Your task to perform on an android device: see creations saved in the google photos Image 0: 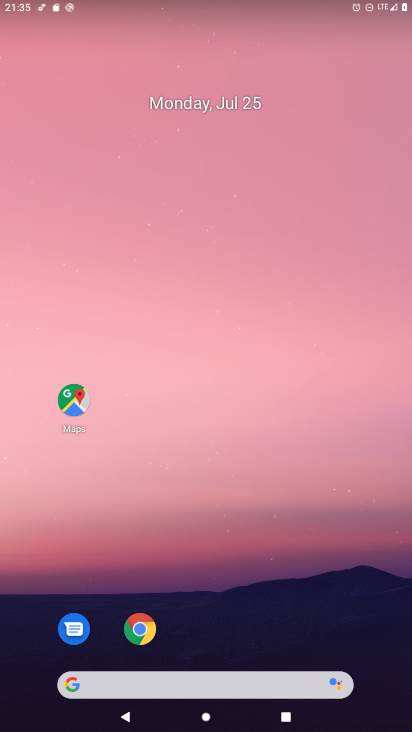
Step 0: drag from (176, 678) to (183, 361)
Your task to perform on an android device: see creations saved in the google photos Image 1: 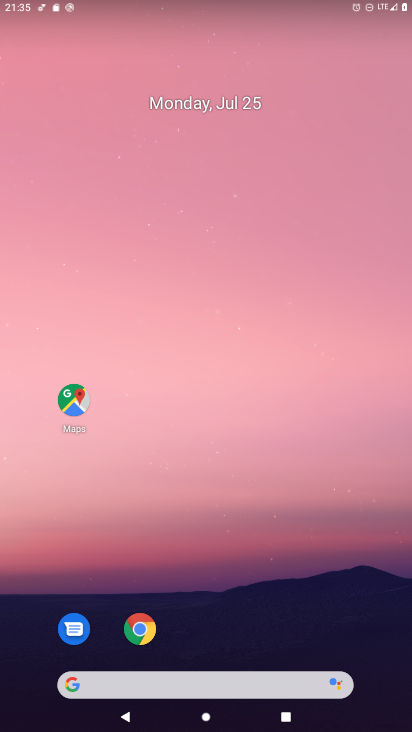
Step 1: drag from (152, 681) to (143, 196)
Your task to perform on an android device: see creations saved in the google photos Image 2: 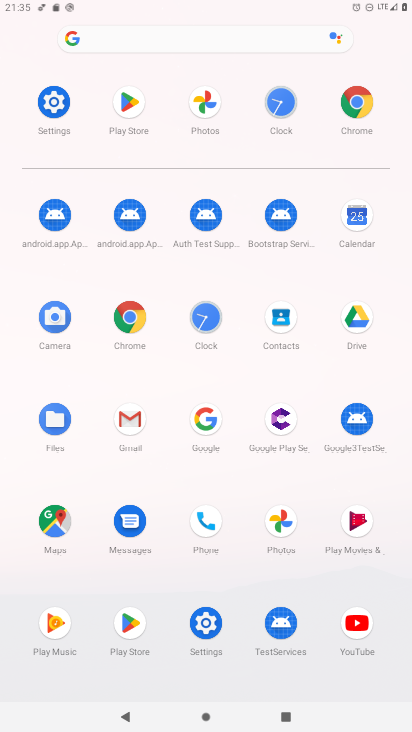
Step 2: click (279, 521)
Your task to perform on an android device: see creations saved in the google photos Image 3: 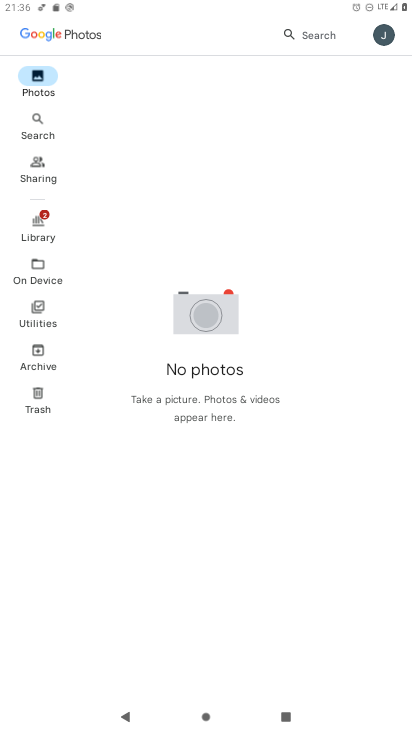
Step 3: click (299, 29)
Your task to perform on an android device: see creations saved in the google photos Image 4: 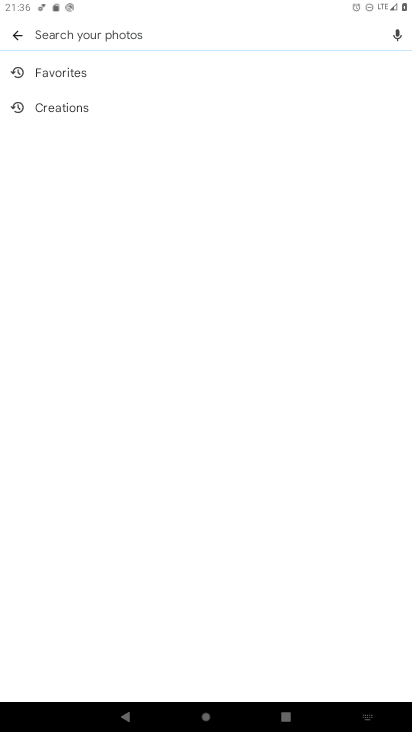
Step 4: click (60, 106)
Your task to perform on an android device: see creations saved in the google photos Image 5: 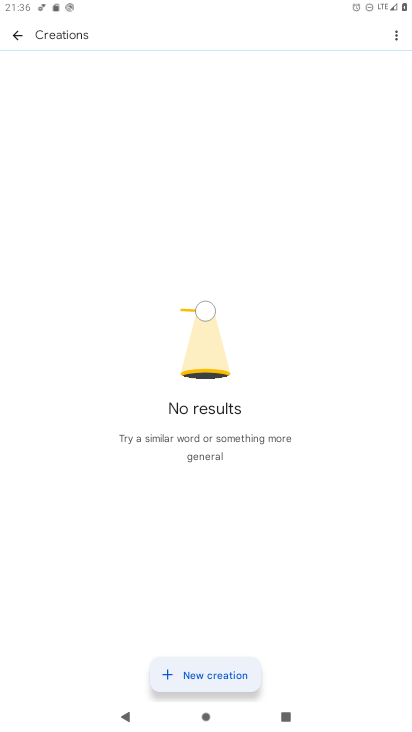
Step 5: click (207, 671)
Your task to perform on an android device: see creations saved in the google photos Image 6: 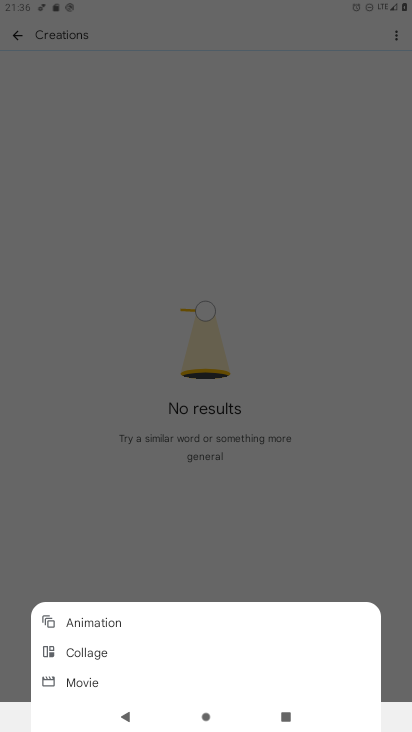
Step 6: click (167, 509)
Your task to perform on an android device: see creations saved in the google photos Image 7: 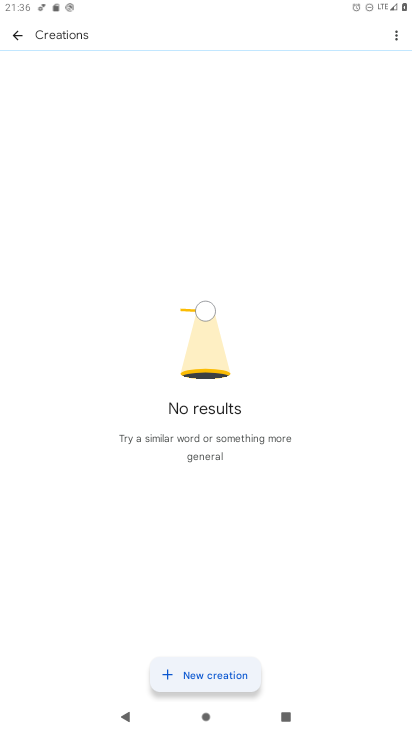
Step 7: click (192, 676)
Your task to perform on an android device: see creations saved in the google photos Image 8: 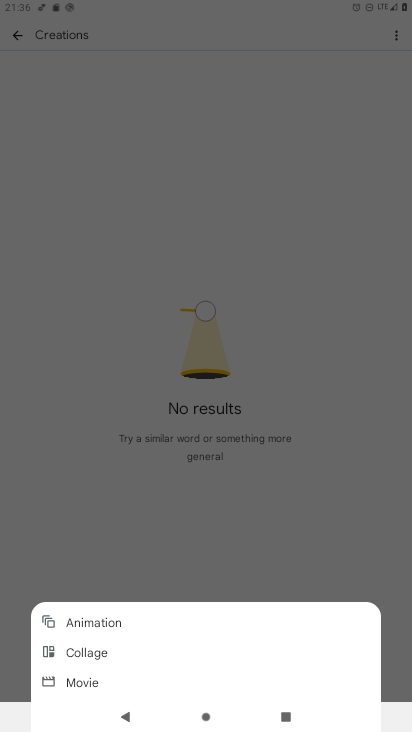
Step 8: click (85, 681)
Your task to perform on an android device: see creations saved in the google photos Image 9: 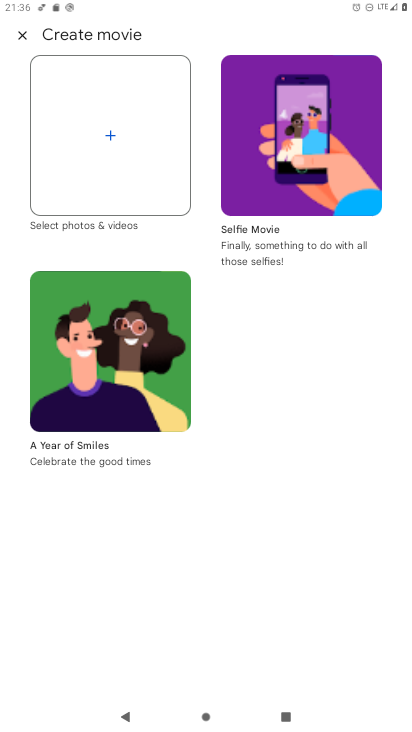
Step 9: click (269, 147)
Your task to perform on an android device: see creations saved in the google photos Image 10: 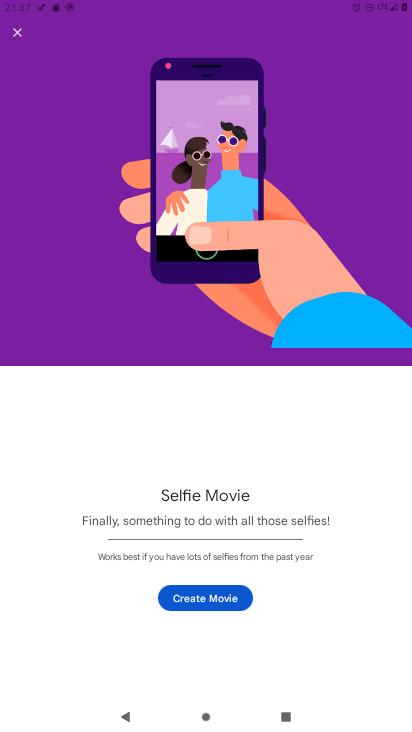
Step 10: task complete